Your task to perform on an android device: install app "Walmart Shopping & Grocery" Image 0: 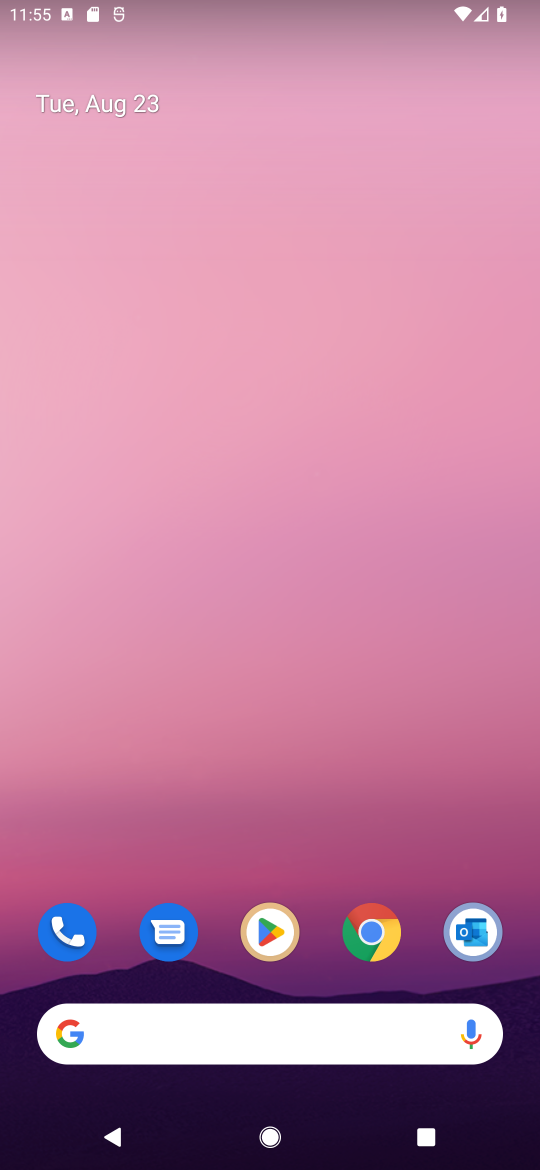
Step 0: click (285, 910)
Your task to perform on an android device: install app "Walmart Shopping & Grocery" Image 1: 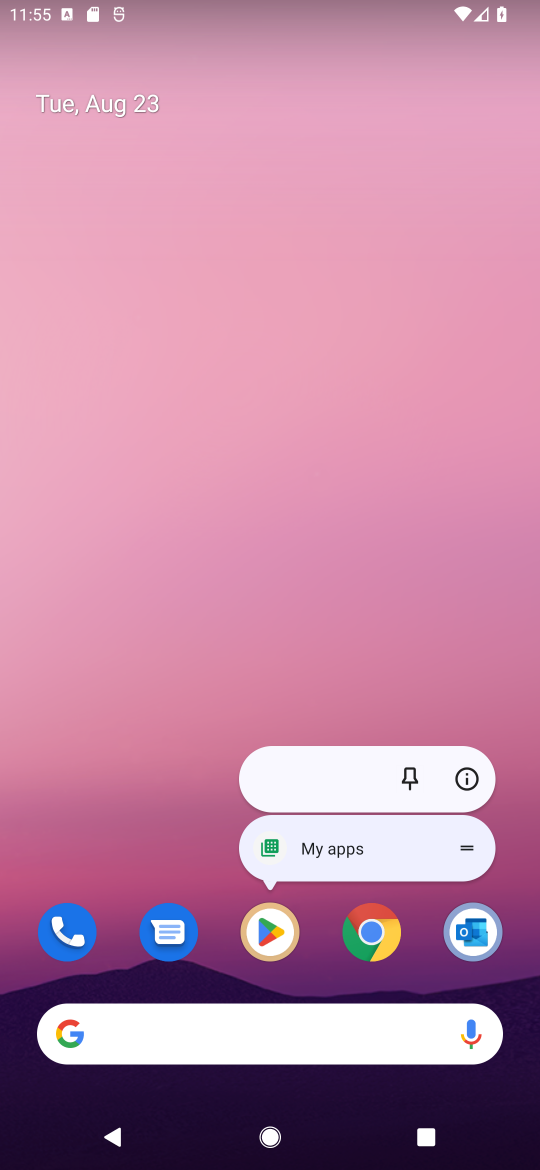
Step 1: click (271, 937)
Your task to perform on an android device: install app "Walmart Shopping & Grocery" Image 2: 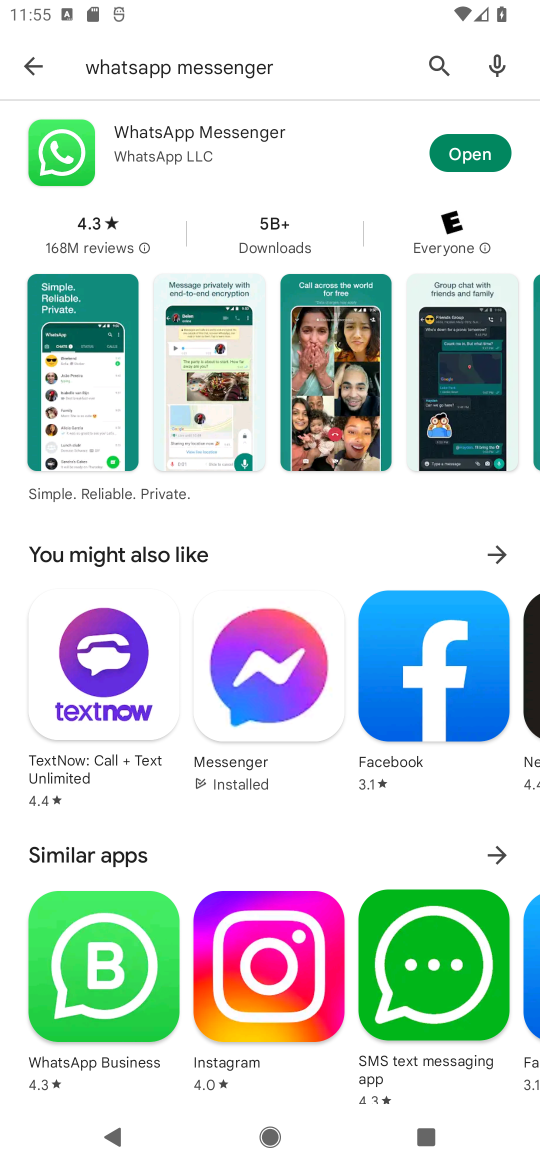
Step 2: click (436, 61)
Your task to perform on an android device: install app "Walmart Shopping & Grocery" Image 3: 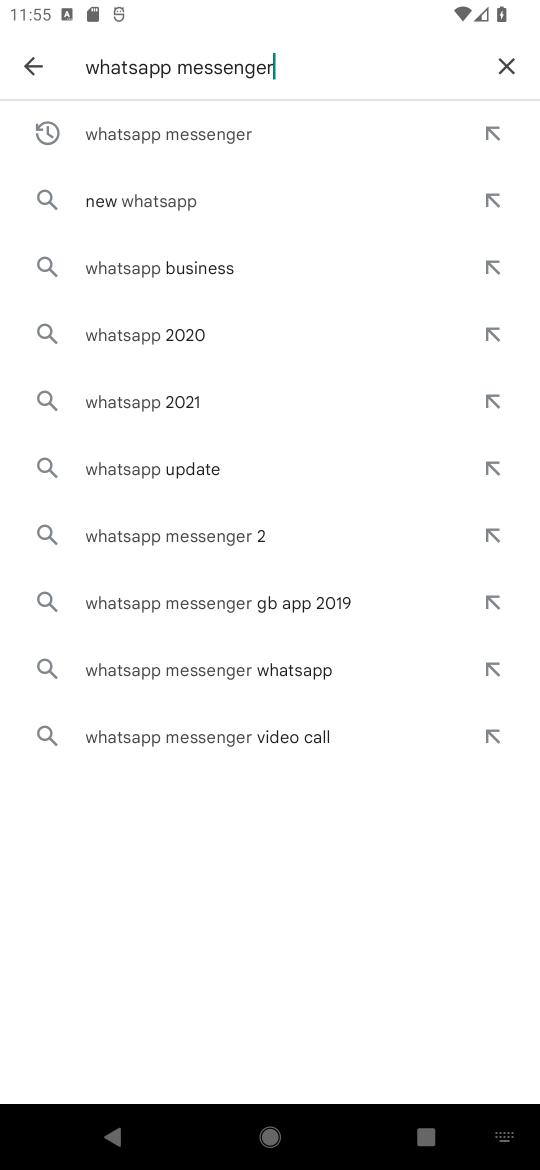
Step 3: click (505, 51)
Your task to perform on an android device: install app "Walmart Shopping & Grocery" Image 4: 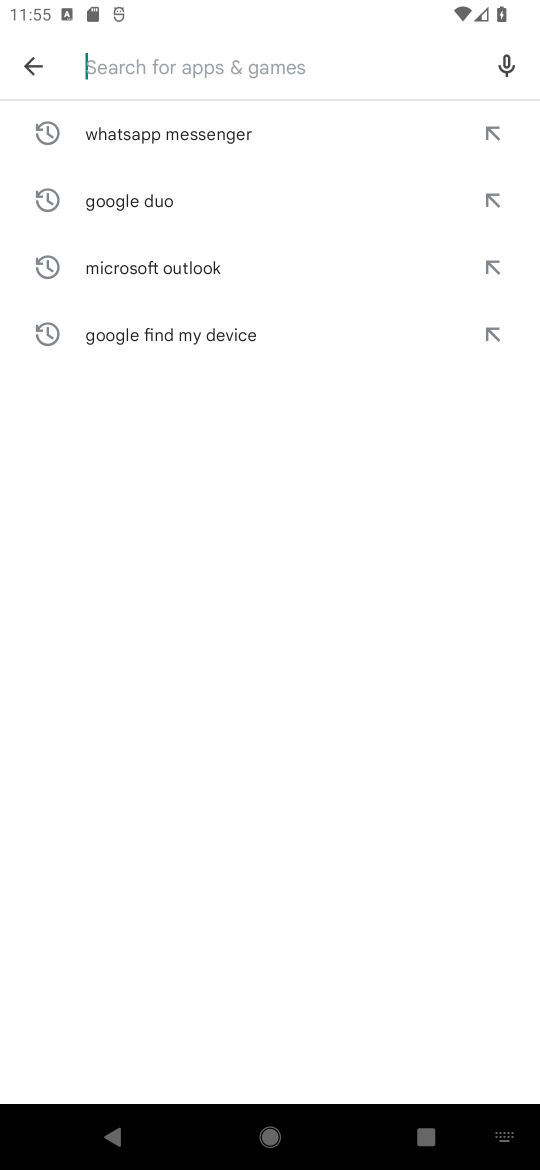
Step 4: click (159, 79)
Your task to perform on an android device: install app "Walmart Shopping & Grocery" Image 5: 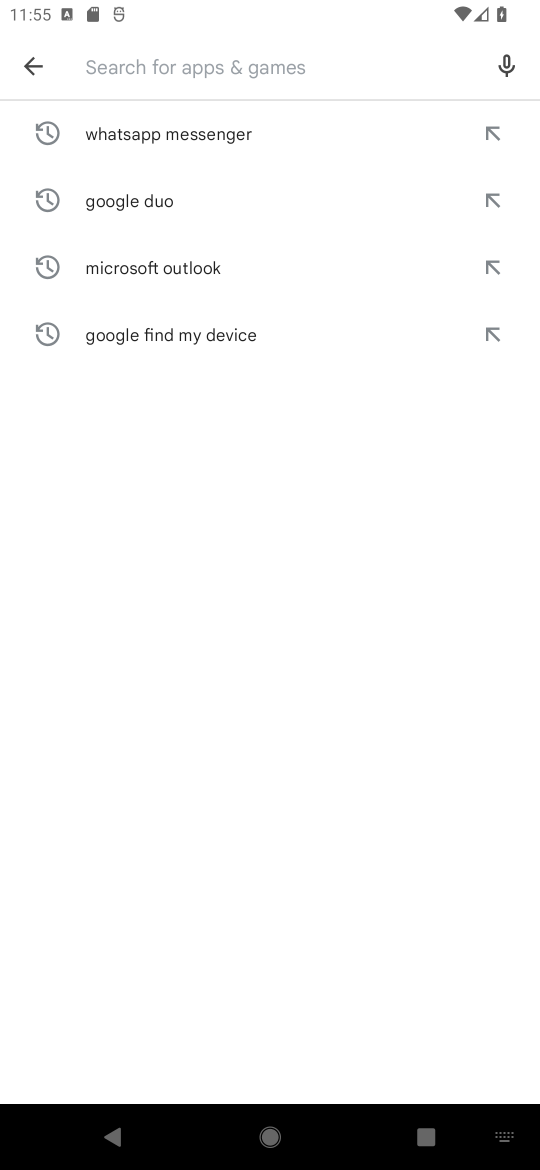
Step 5: type "Walmart Shopping & Grocery"
Your task to perform on an android device: install app "Walmart Shopping & Grocery" Image 6: 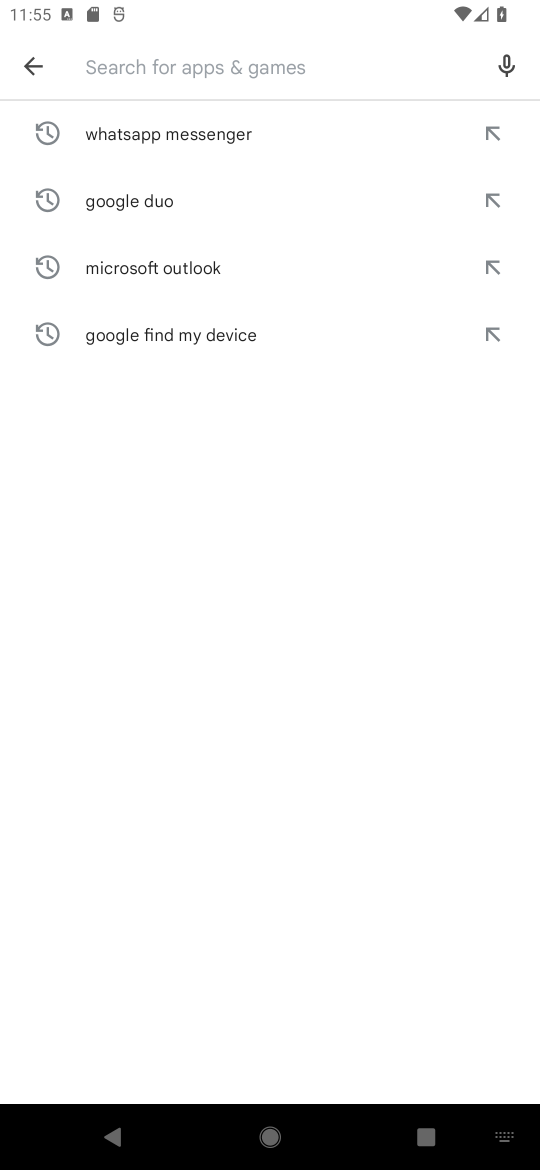
Step 6: click (368, 775)
Your task to perform on an android device: install app "Walmart Shopping & Grocery" Image 7: 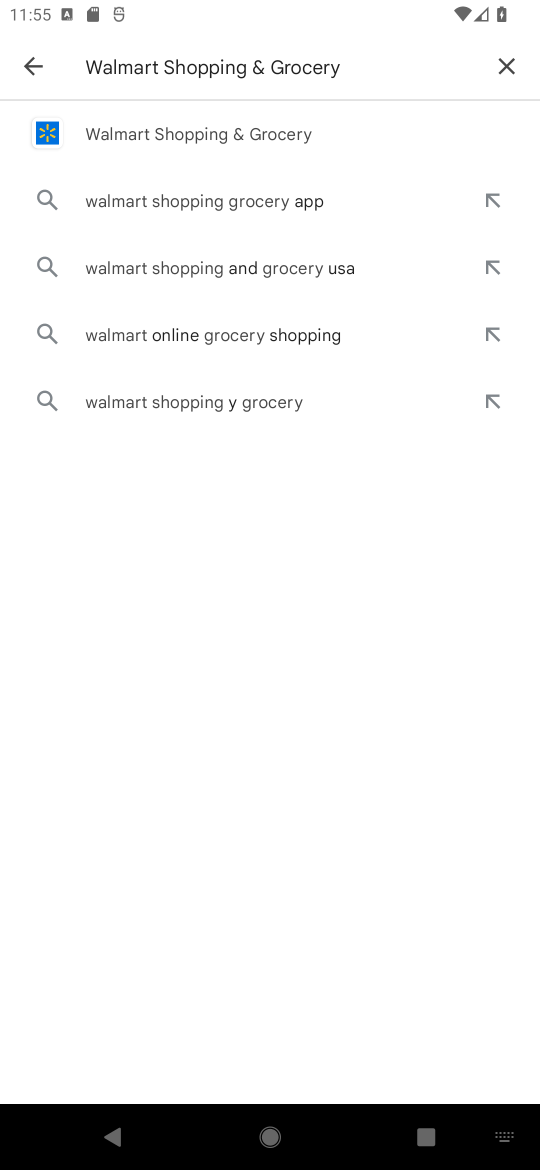
Step 7: click (241, 132)
Your task to perform on an android device: install app "Walmart Shopping & Grocery" Image 8: 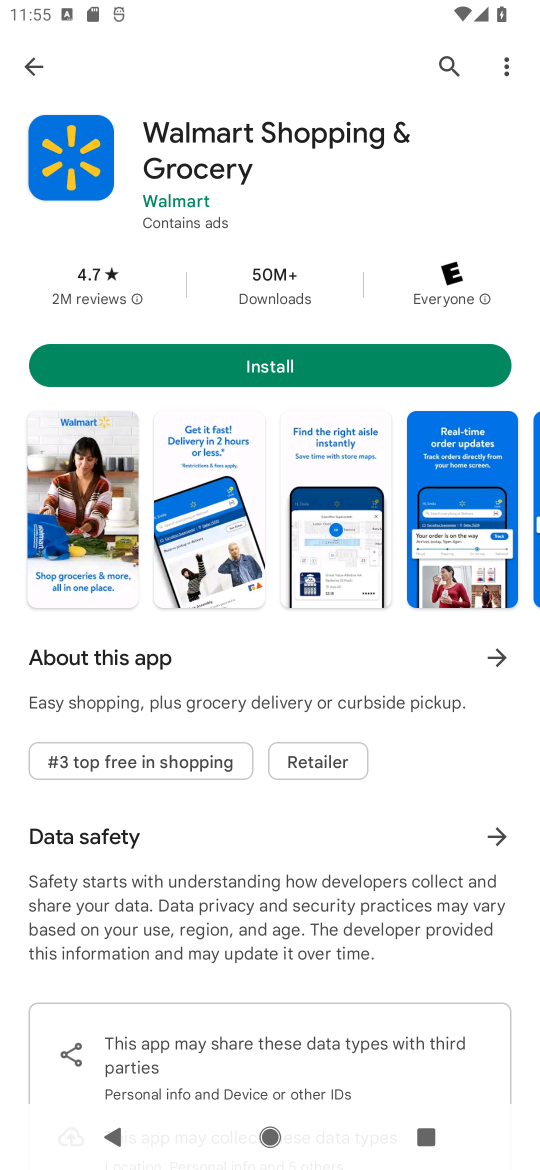
Step 8: click (263, 363)
Your task to perform on an android device: install app "Walmart Shopping & Grocery" Image 9: 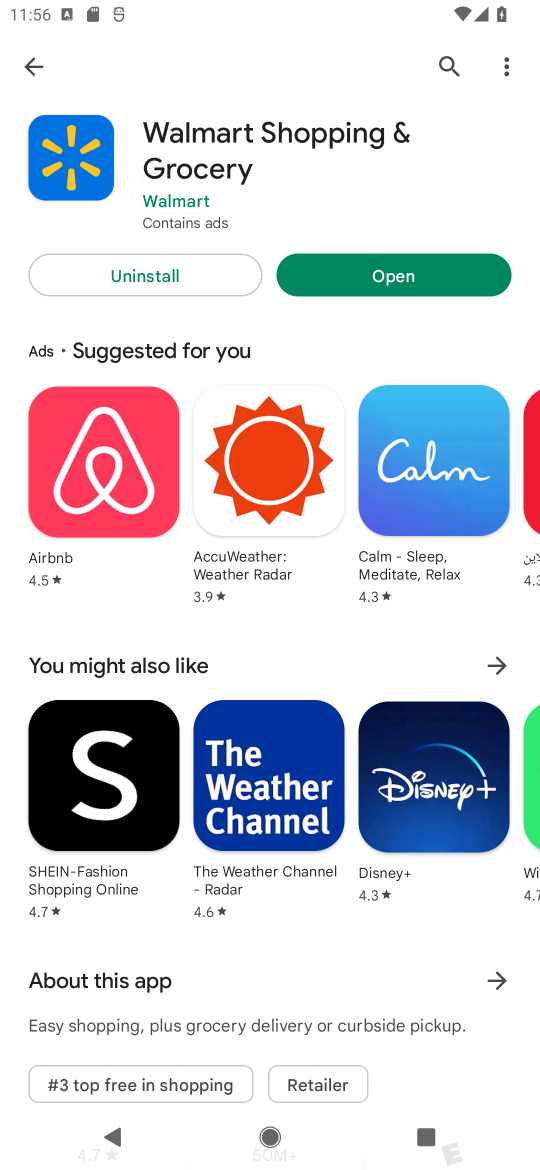
Step 9: task complete